Your task to perform on an android device: Open Google Maps and go to "Timeline" Image 0: 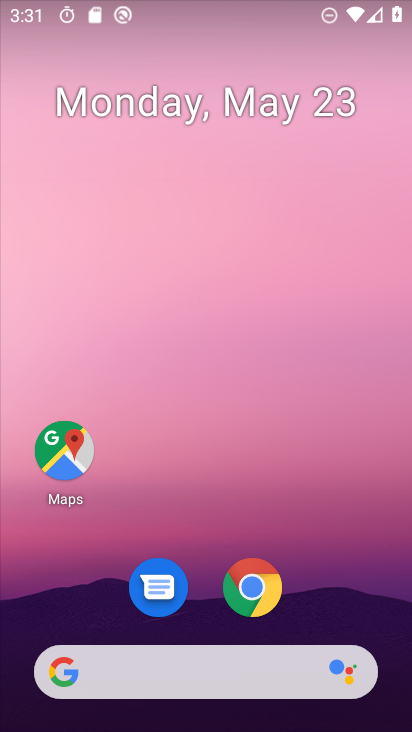
Step 0: click (252, 592)
Your task to perform on an android device: Open Google Maps and go to "Timeline" Image 1: 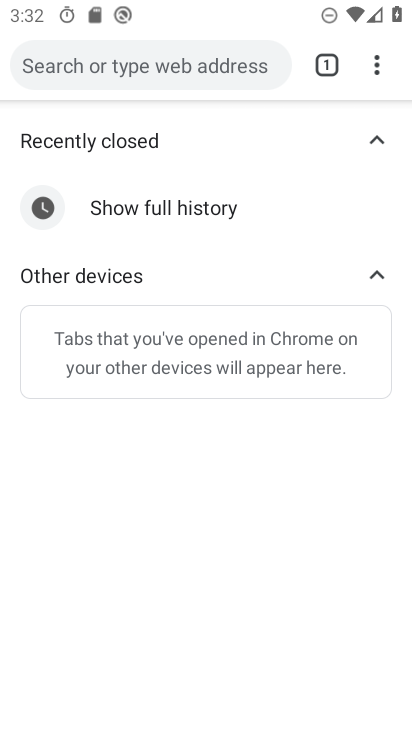
Step 1: press home button
Your task to perform on an android device: Open Google Maps and go to "Timeline" Image 2: 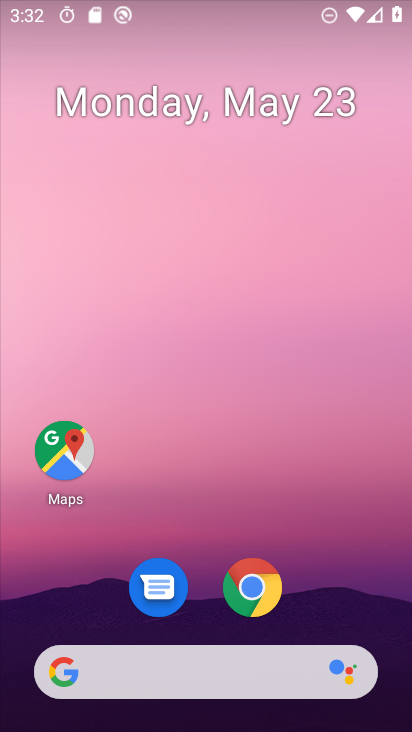
Step 2: click (54, 441)
Your task to perform on an android device: Open Google Maps and go to "Timeline" Image 3: 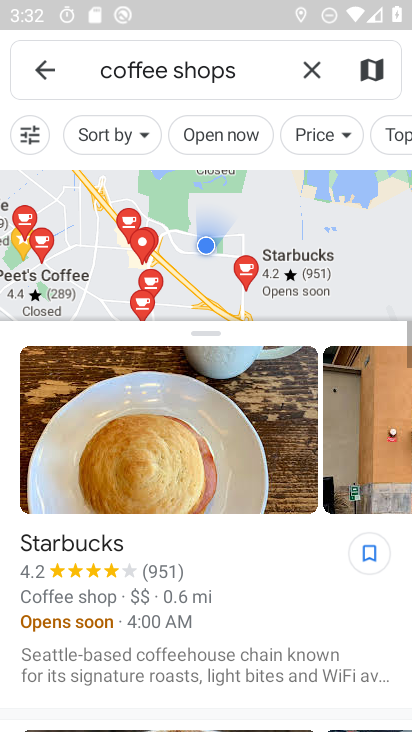
Step 3: click (40, 60)
Your task to perform on an android device: Open Google Maps and go to "Timeline" Image 4: 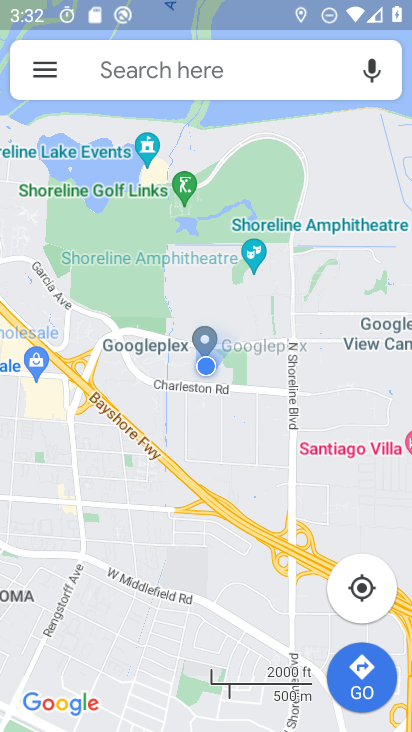
Step 4: click (41, 61)
Your task to perform on an android device: Open Google Maps and go to "Timeline" Image 5: 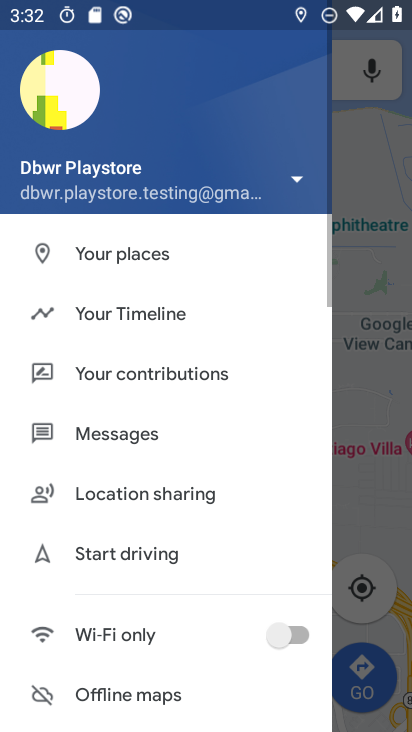
Step 5: click (144, 311)
Your task to perform on an android device: Open Google Maps and go to "Timeline" Image 6: 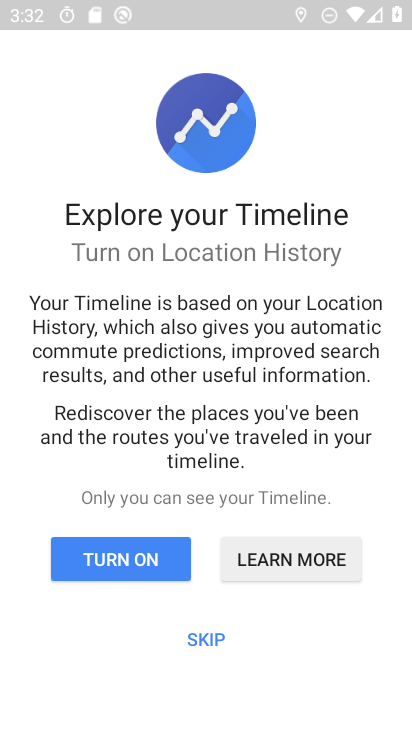
Step 6: click (197, 640)
Your task to perform on an android device: Open Google Maps and go to "Timeline" Image 7: 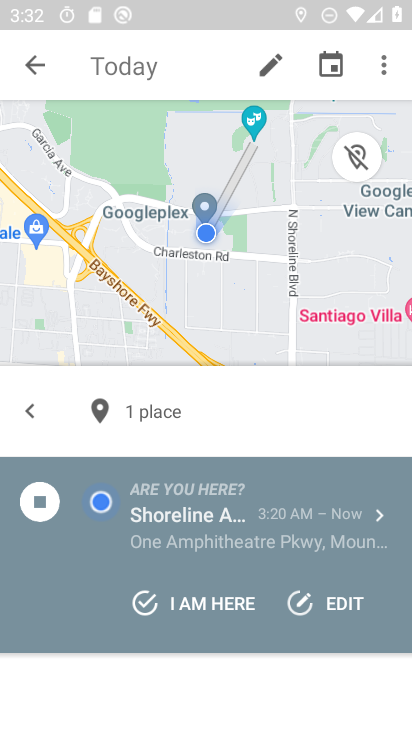
Step 7: task complete